Your task to perform on an android device: Empty the shopping cart on walmart. Add dell alienware to the cart on walmart Image 0: 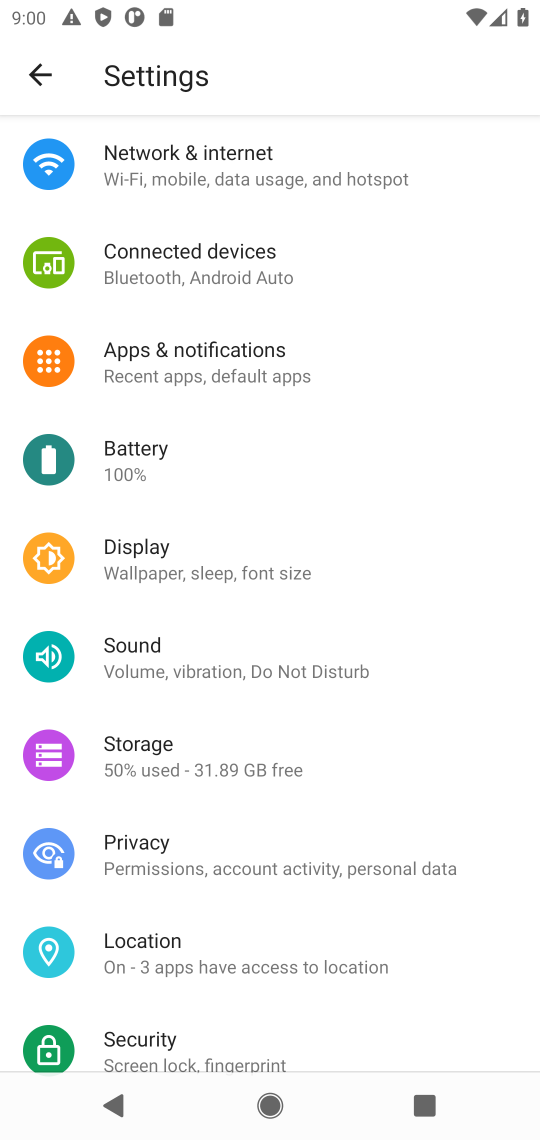
Step 0: press home button
Your task to perform on an android device: Empty the shopping cart on walmart. Add dell alienware to the cart on walmart Image 1: 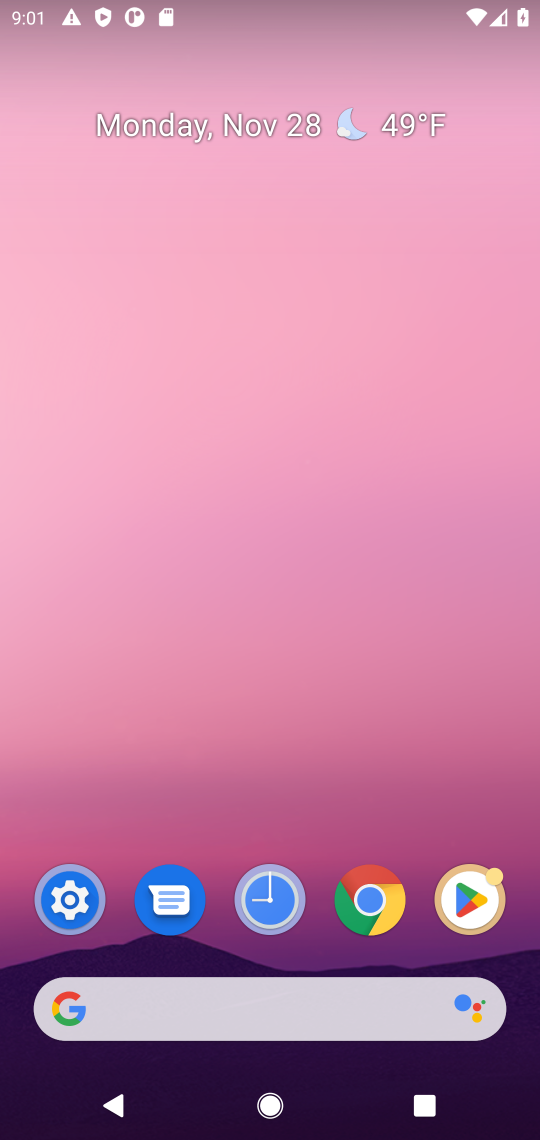
Step 1: click (157, 1024)
Your task to perform on an android device: Empty the shopping cart on walmart. Add dell alienware to the cart on walmart Image 2: 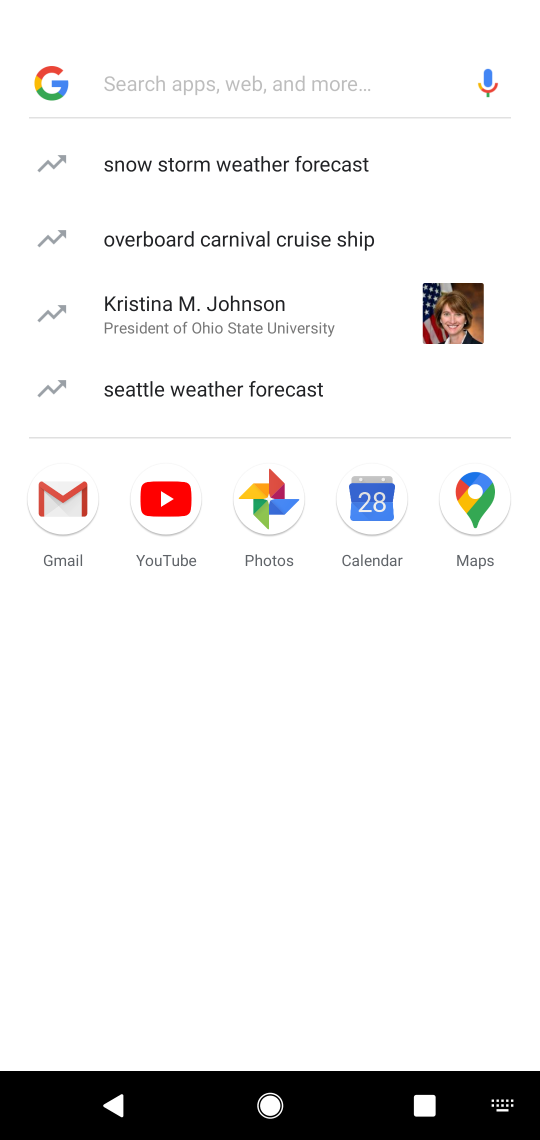
Step 2: type "dell alienware"
Your task to perform on an android device: Empty the shopping cart on walmart. Add dell alienware to the cart on walmart Image 3: 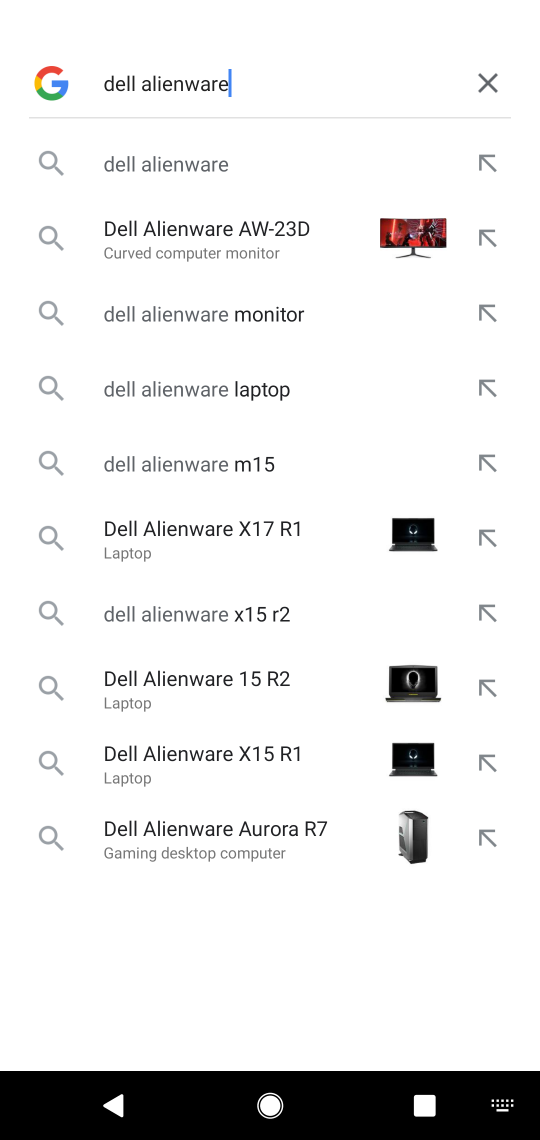
Step 3: click (298, 157)
Your task to perform on an android device: Empty the shopping cart on walmart. Add dell alienware to the cart on walmart Image 4: 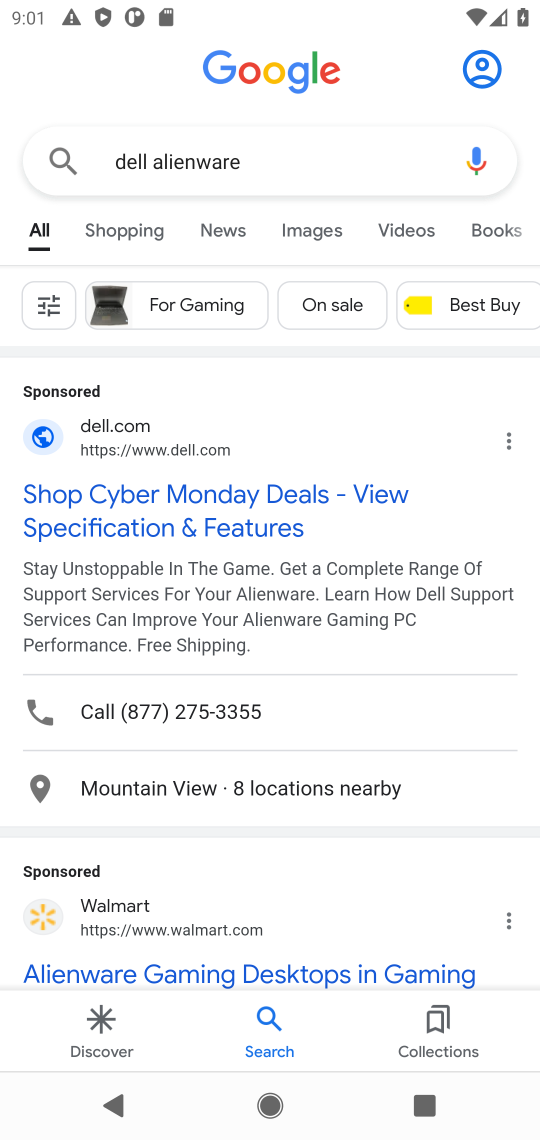
Step 4: click (171, 476)
Your task to perform on an android device: Empty the shopping cart on walmart. Add dell alienware to the cart on walmart Image 5: 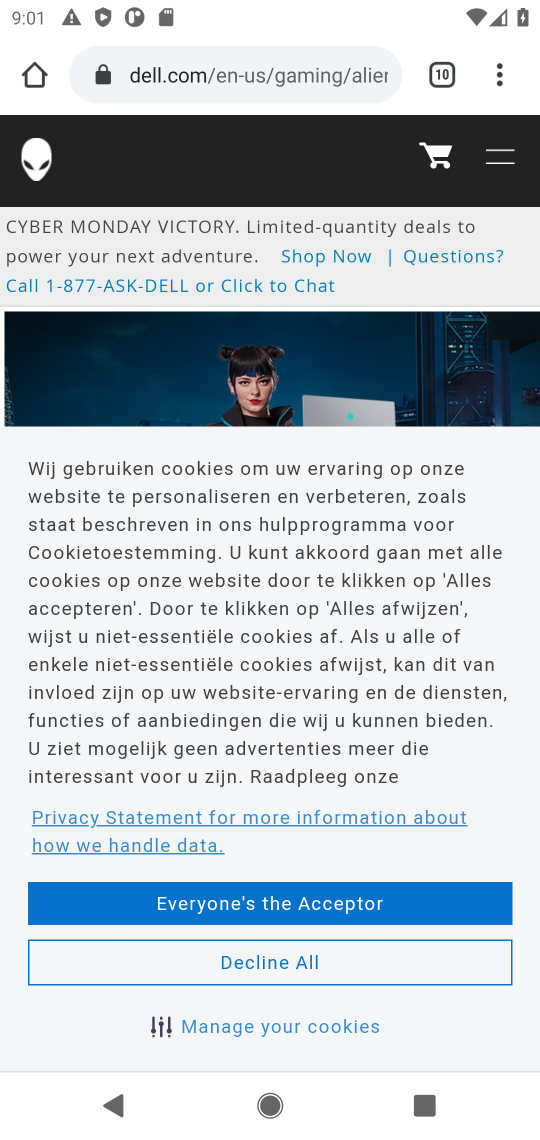
Step 5: task complete